Your task to perform on an android device: delete a single message in the gmail app Image 0: 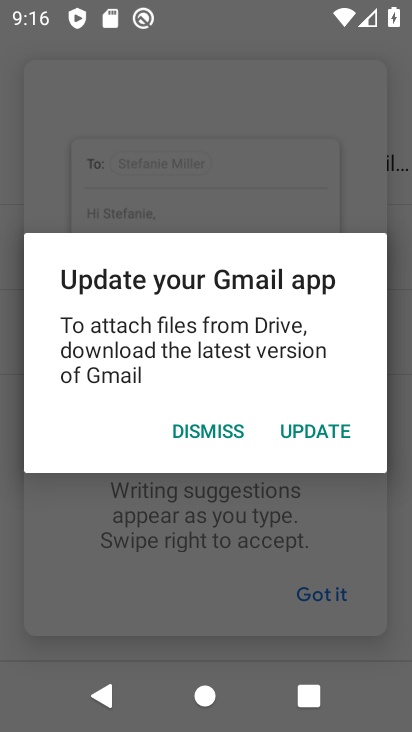
Step 0: press home button
Your task to perform on an android device: delete a single message in the gmail app Image 1: 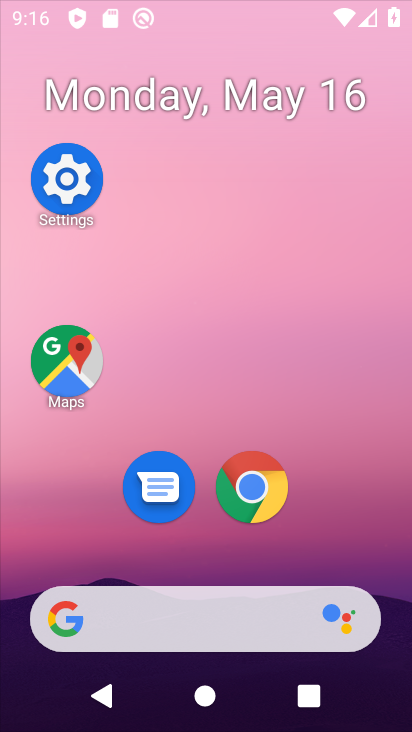
Step 1: click (293, 98)
Your task to perform on an android device: delete a single message in the gmail app Image 2: 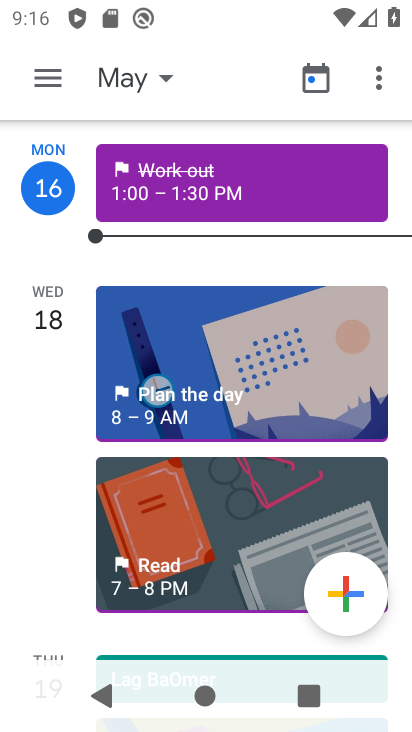
Step 2: press home button
Your task to perform on an android device: delete a single message in the gmail app Image 3: 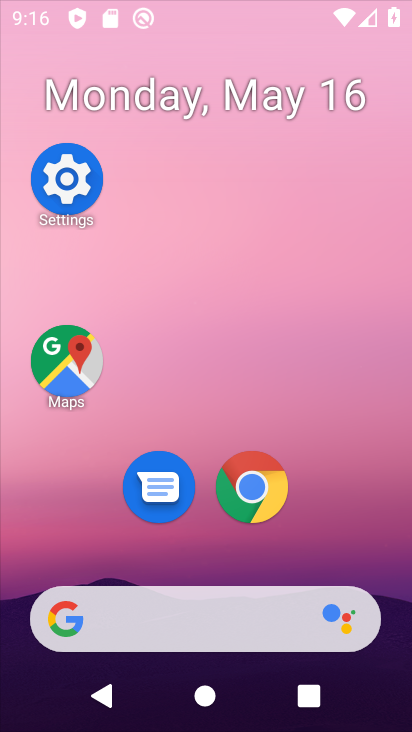
Step 3: click (231, 159)
Your task to perform on an android device: delete a single message in the gmail app Image 4: 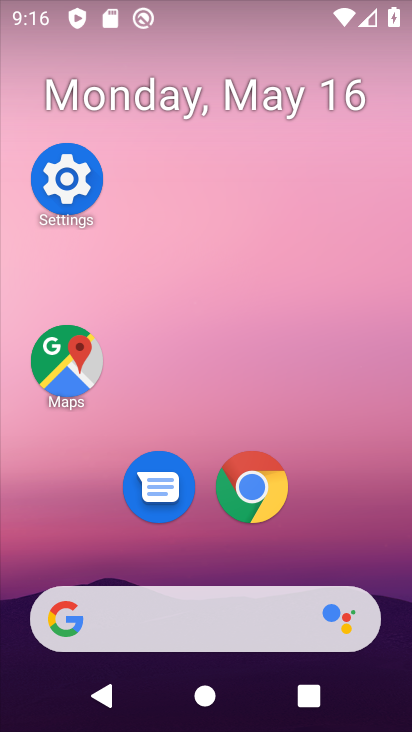
Step 4: drag from (295, 540) to (294, 100)
Your task to perform on an android device: delete a single message in the gmail app Image 5: 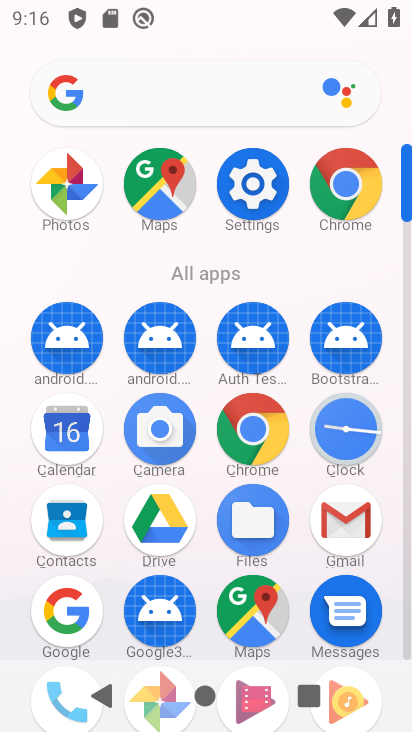
Step 5: drag from (352, 523) to (166, 338)
Your task to perform on an android device: delete a single message in the gmail app Image 6: 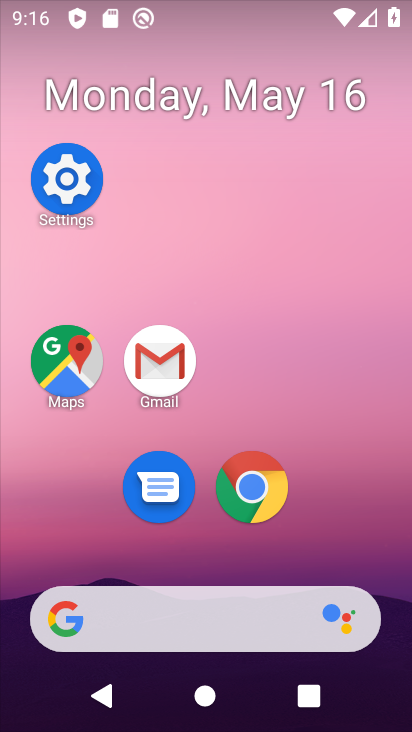
Step 6: click (162, 351)
Your task to perform on an android device: delete a single message in the gmail app Image 7: 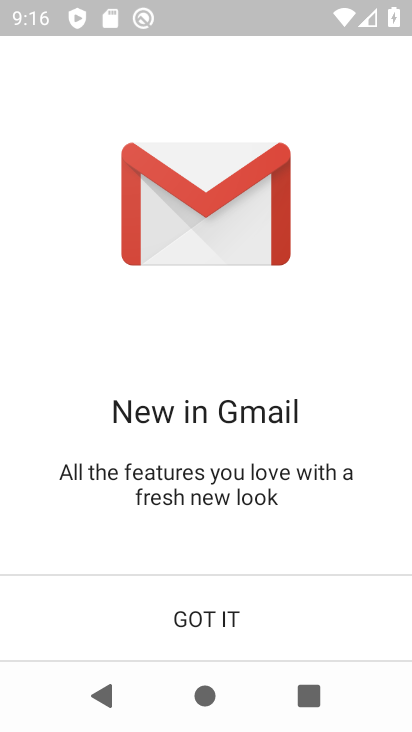
Step 7: click (270, 620)
Your task to perform on an android device: delete a single message in the gmail app Image 8: 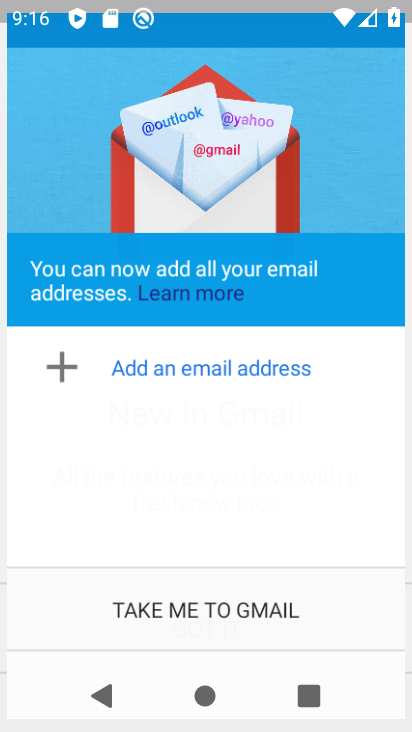
Step 8: click (270, 620)
Your task to perform on an android device: delete a single message in the gmail app Image 9: 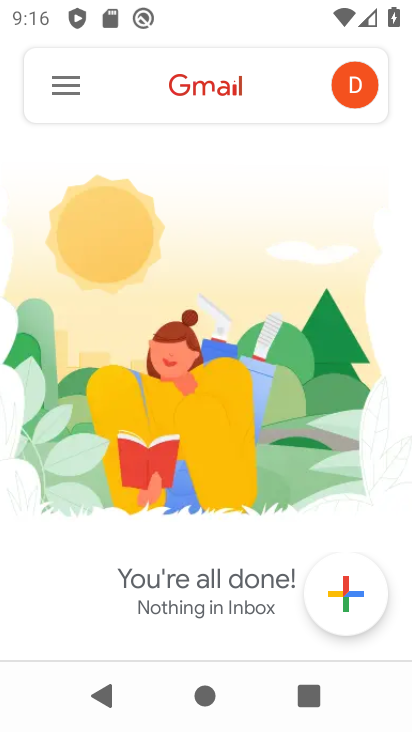
Step 9: click (62, 92)
Your task to perform on an android device: delete a single message in the gmail app Image 10: 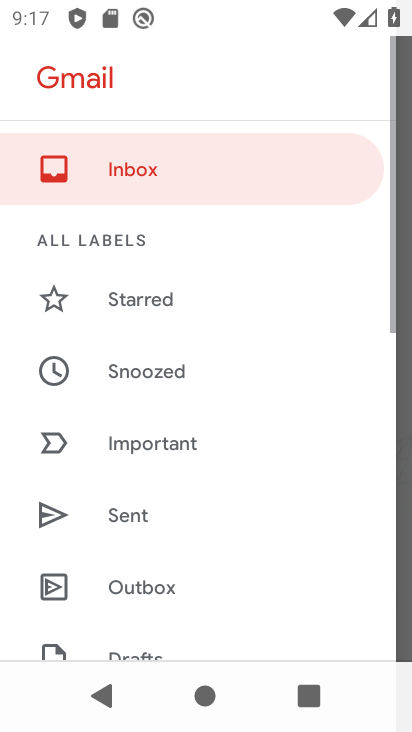
Step 10: drag from (230, 555) to (183, 193)
Your task to perform on an android device: delete a single message in the gmail app Image 11: 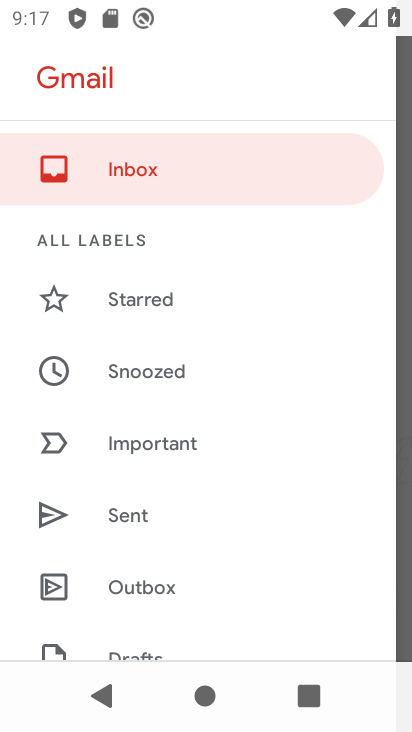
Step 11: drag from (235, 556) to (286, 193)
Your task to perform on an android device: delete a single message in the gmail app Image 12: 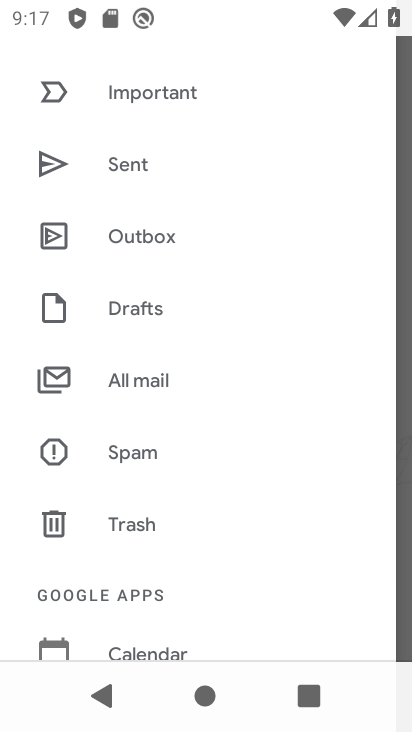
Step 12: click (195, 397)
Your task to perform on an android device: delete a single message in the gmail app Image 13: 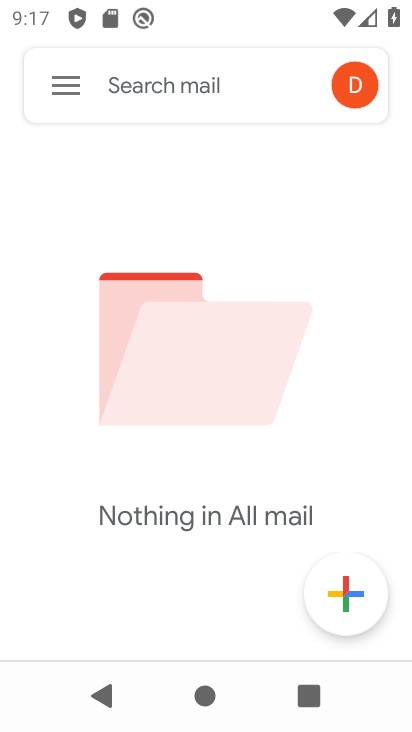
Step 13: task complete